Your task to perform on an android device: Open the map Image 0: 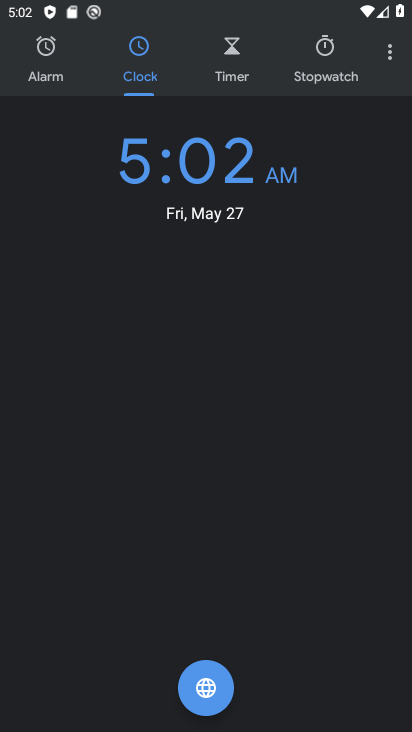
Step 0: press home button
Your task to perform on an android device: Open the map Image 1: 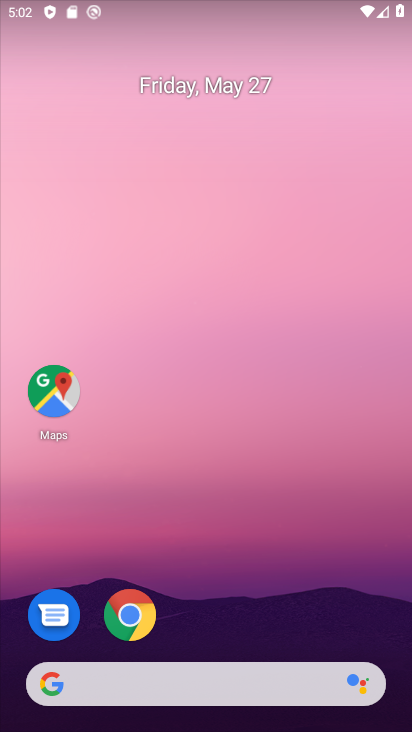
Step 1: click (34, 386)
Your task to perform on an android device: Open the map Image 2: 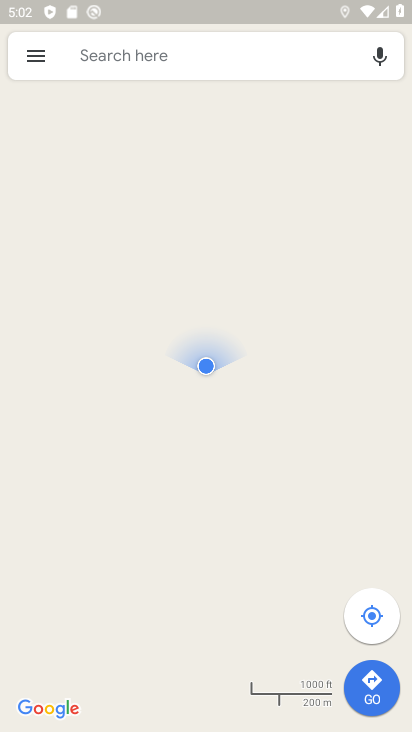
Step 2: task complete